Your task to perform on an android device: Show me productivity apps on the Play Store Image 0: 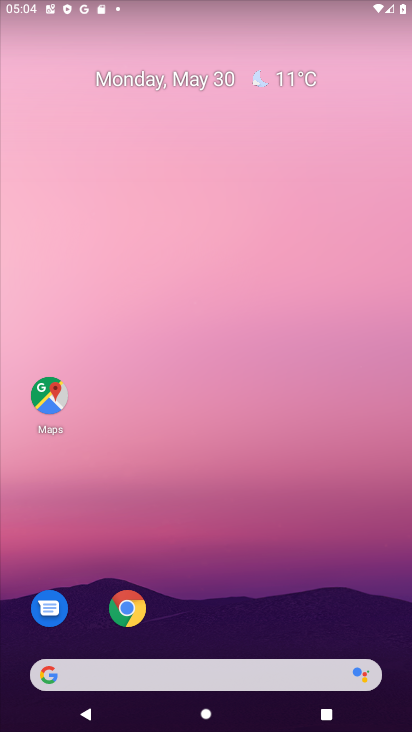
Step 0: drag from (211, 646) to (163, 231)
Your task to perform on an android device: Show me productivity apps on the Play Store Image 1: 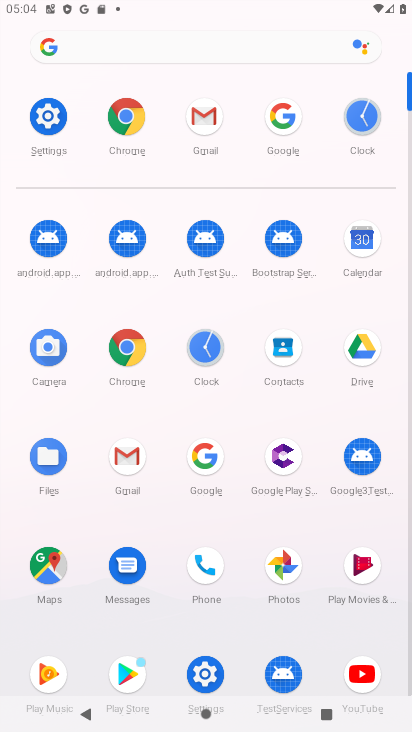
Step 1: click (131, 676)
Your task to perform on an android device: Show me productivity apps on the Play Store Image 2: 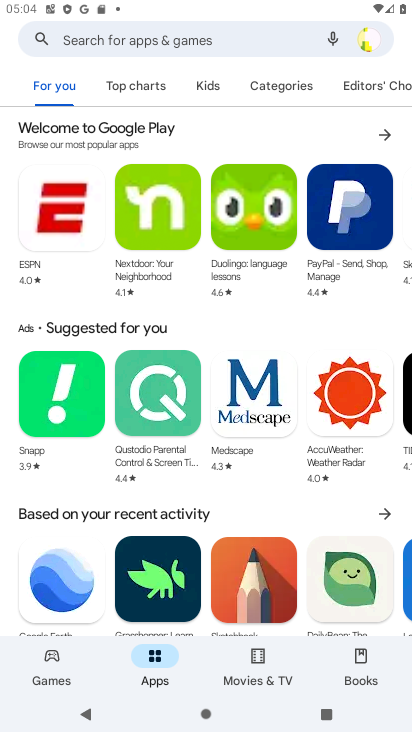
Step 2: click (212, 165)
Your task to perform on an android device: Show me productivity apps on the Play Store Image 3: 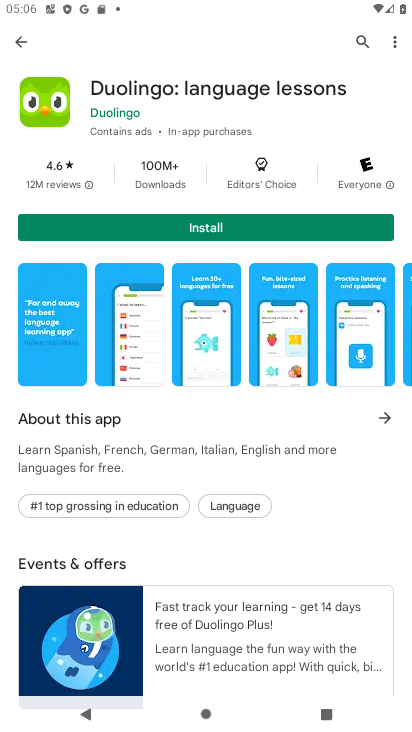
Step 3: task complete